Your task to perform on an android device: Show me popular games on the Play Store Image 0: 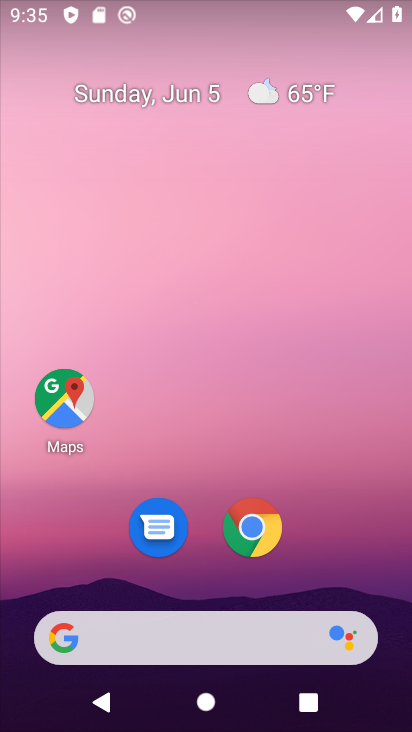
Step 0: drag from (174, 507) to (207, 144)
Your task to perform on an android device: Show me popular games on the Play Store Image 1: 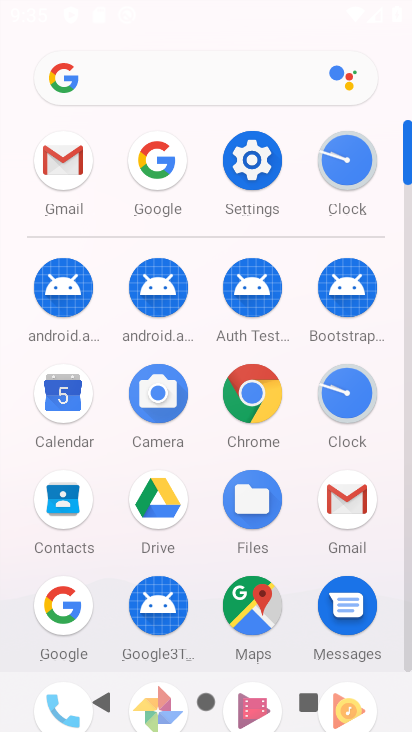
Step 1: drag from (206, 619) to (266, 62)
Your task to perform on an android device: Show me popular games on the Play Store Image 2: 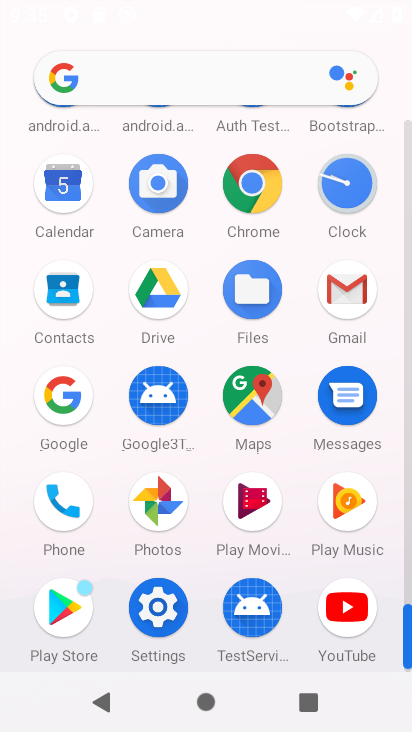
Step 2: click (58, 619)
Your task to perform on an android device: Show me popular games on the Play Store Image 3: 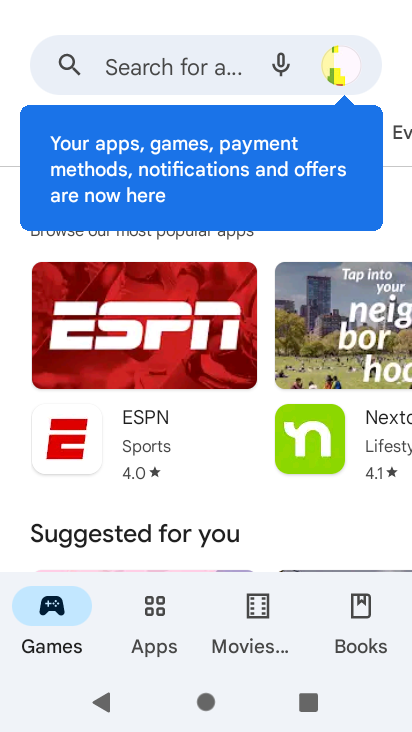
Step 3: drag from (211, 547) to (313, 6)
Your task to perform on an android device: Show me popular games on the Play Store Image 4: 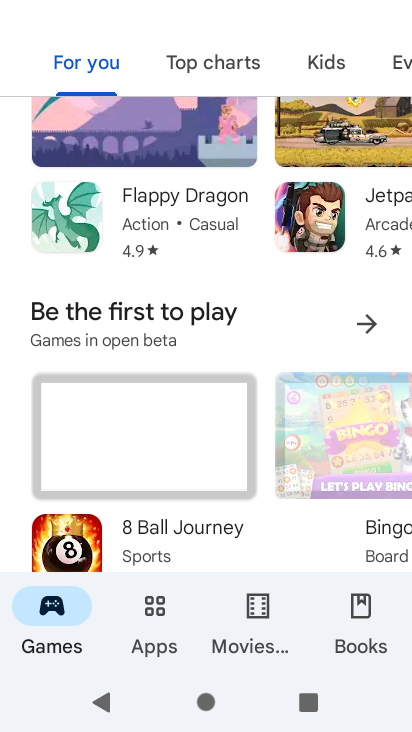
Step 4: drag from (226, 276) to (256, 66)
Your task to perform on an android device: Show me popular games on the Play Store Image 5: 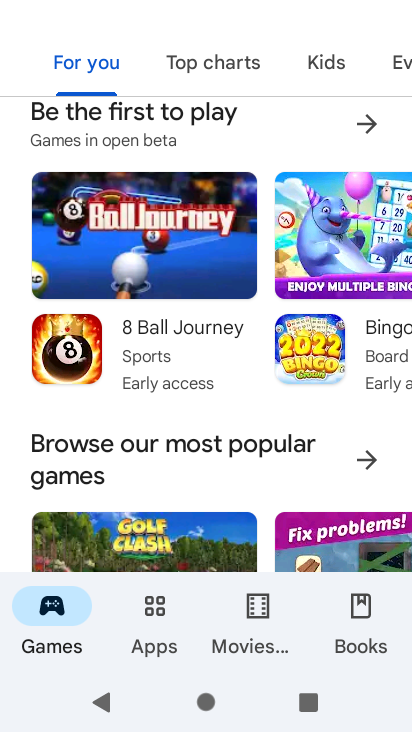
Step 5: drag from (196, 472) to (234, 210)
Your task to perform on an android device: Show me popular games on the Play Store Image 6: 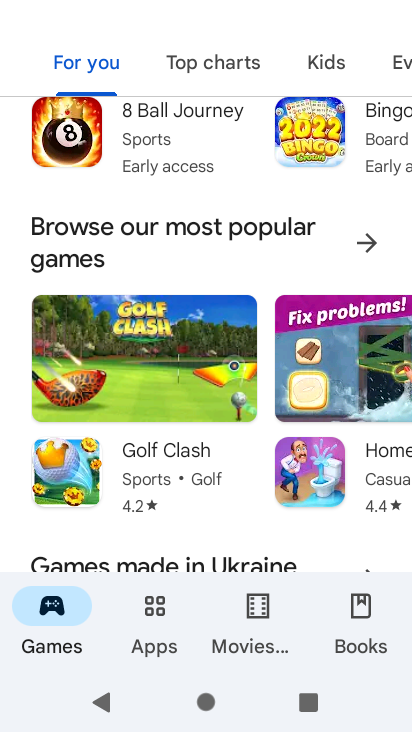
Step 6: click (379, 237)
Your task to perform on an android device: Show me popular games on the Play Store Image 7: 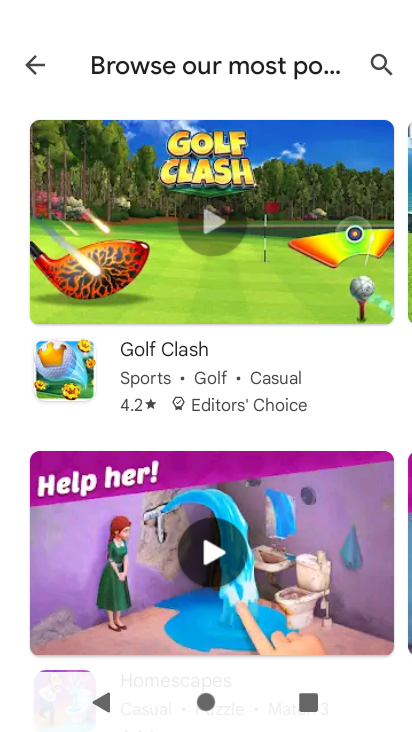
Step 7: task complete